Your task to perform on an android device: open the mobile data screen to see how much data has been used Image 0: 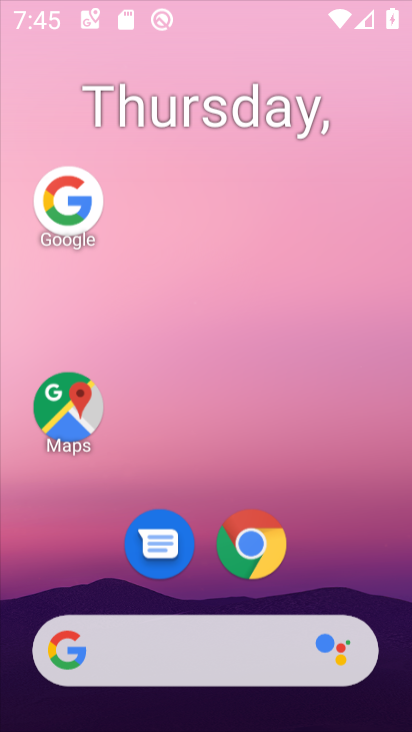
Step 0: press home button
Your task to perform on an android device: open the mobile data screen to see how much data has been used Image 1: 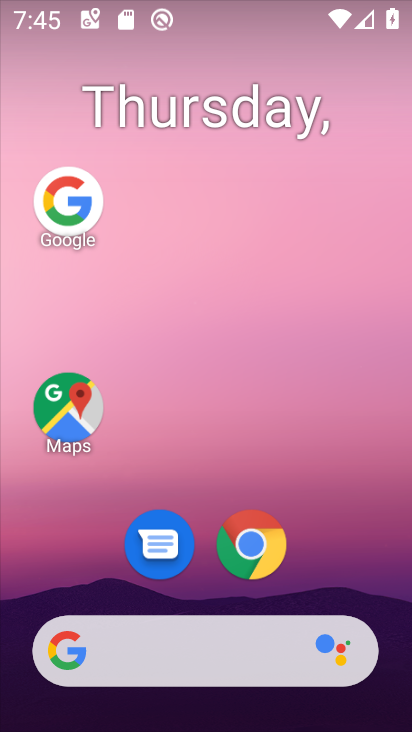
Step 1: drag from (213, 698) to (275, 116)
Your task to perform on an android device: open the mobile data screen to see how much data has been used Image 2: 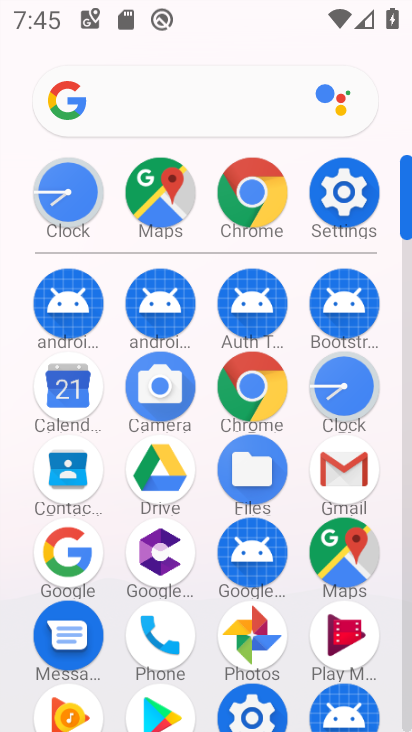
Step 2: click (350, 195)
Your task to perform on an android device: open the mobile data screen to see how much data has been used Image 3: 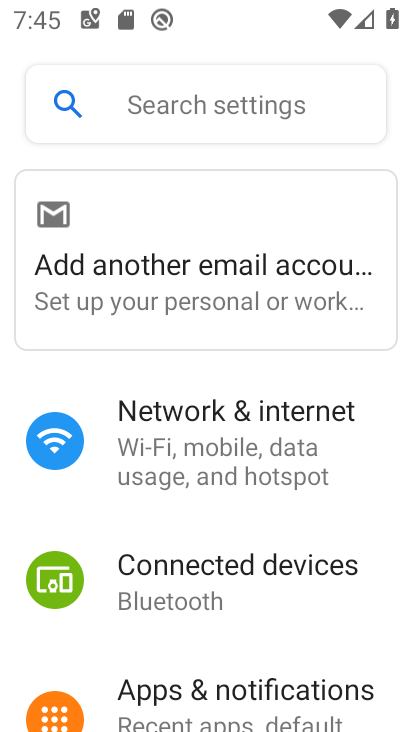
Step 3: click (225, 121)
Your task to perform on an android device: open the mobile data screen to see how much data has been used Image 4: 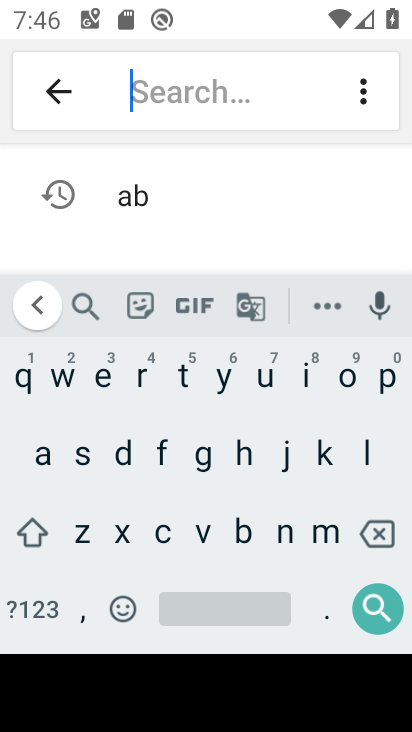
Step 4: click (323, 535)
Your task to perform on an android device: open the mobile data screen to see how much data has been used Image 5: 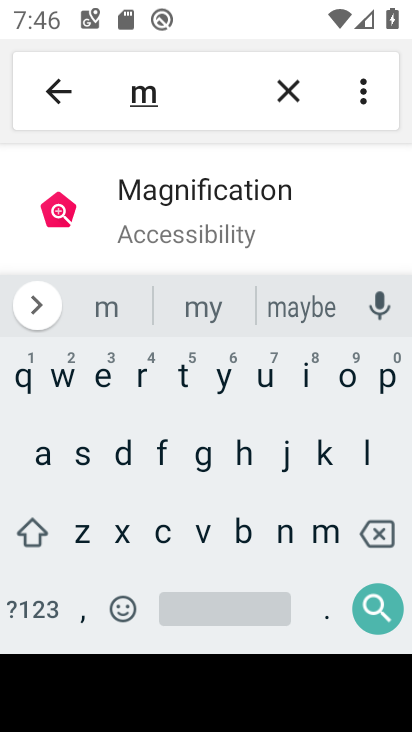
Step 5: click (350, 374)
Your task to perform on an android device: open the mobile data screen to see how much data has been used Image 6: 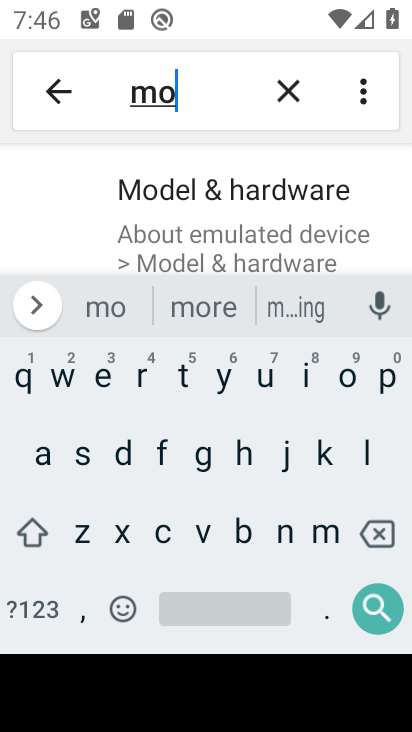
Step 6: click (238, 529)
Your task to perform on an android device: open the mobile data screen to see how much data has been used Image 7: 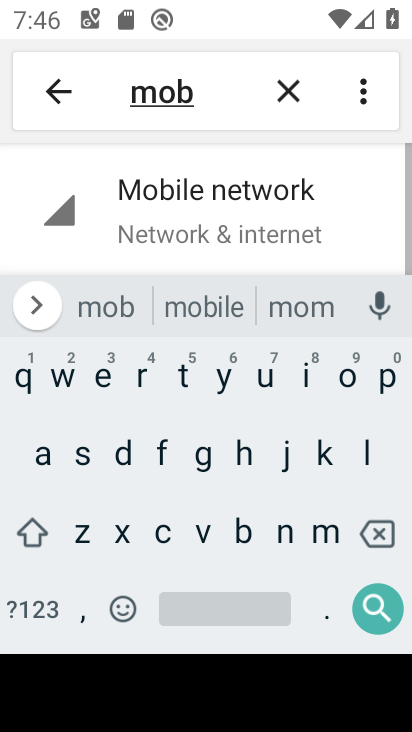
Step 7: click (310, 392)
Your task to perform on an android device: open the mobile data screen to see how much data has been used Image 8: 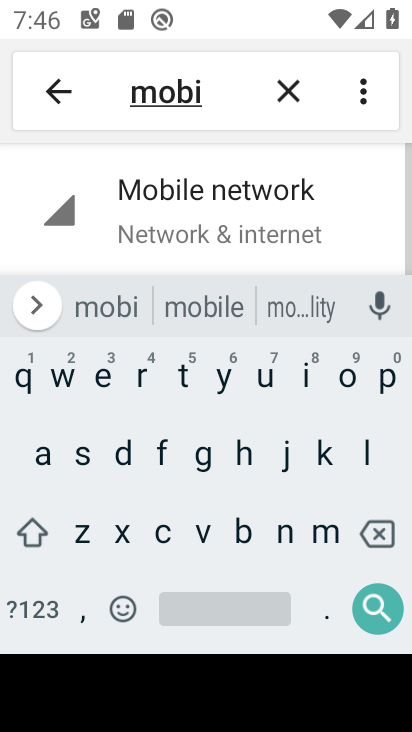
Step 8: click (359, 446)
Your task to perform on an android device: open the mobile data screen to see how much data has been used Image 9: 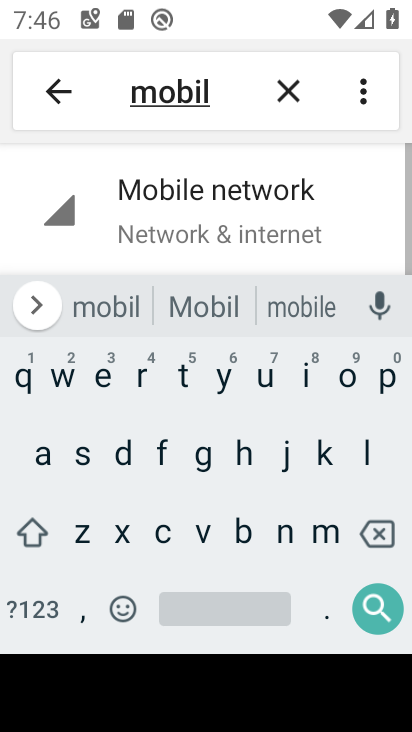
Step 9: click (104, 371)
Your task to perform on an android device: open the mobile data screen to see how much data has been used Image 10: 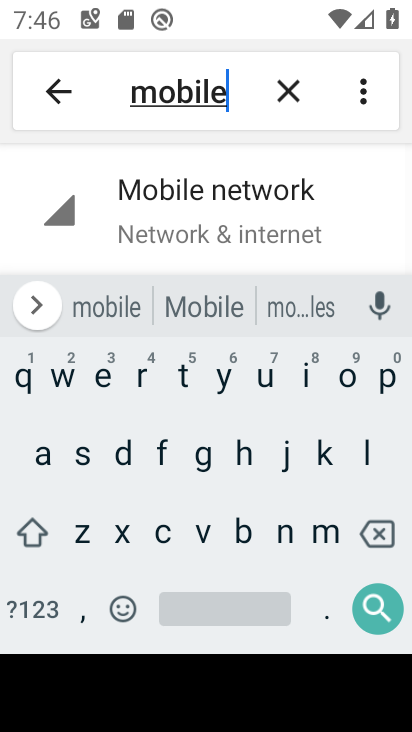
Step 10: click (207, 599)
Your task to perform on an android device: open the mobile data screen to see how much data has been used Image 11: 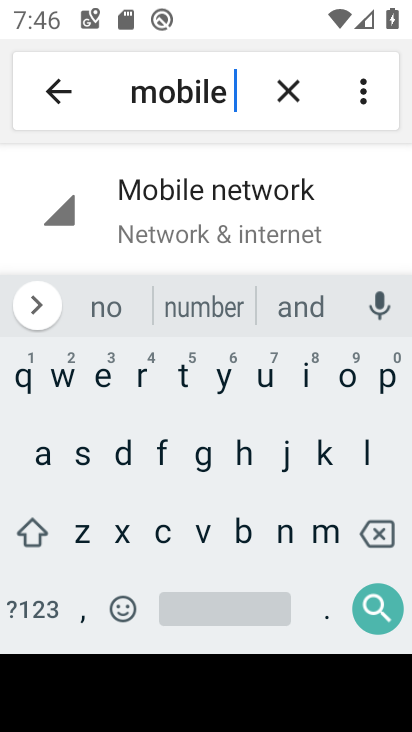
Step 11: click (122, 452)
Your task to perform on an android device: open the mobile data screen to see how much data has been used Image 12: 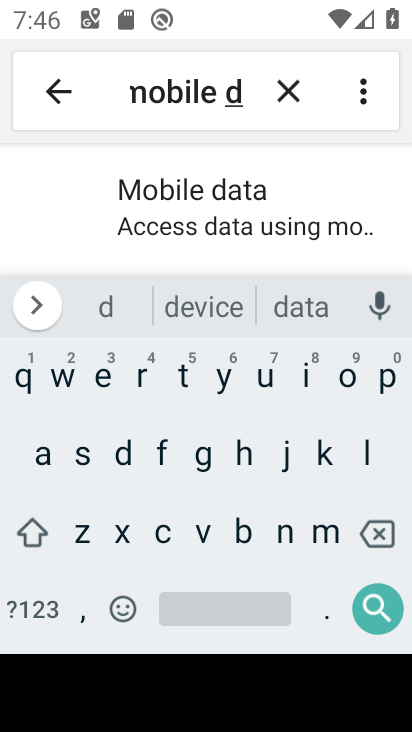
Step 12: click (40, 445)
Your task to perform on an android device: open the mobile data screen to see how much data has been used Image 13: 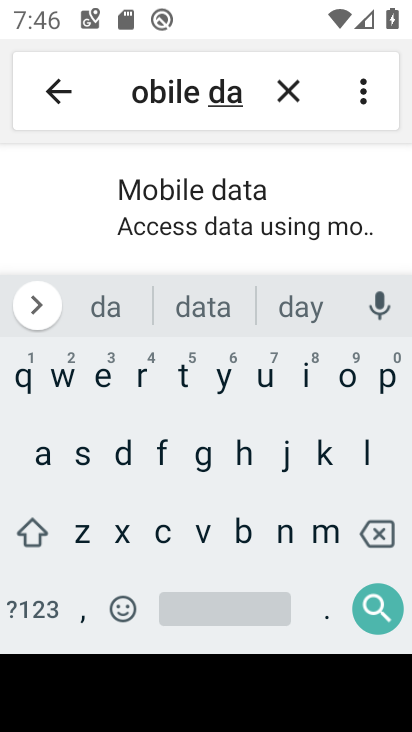
Step 13: click (219, 209)
Your task to perform on an android device: open the mobile data screen to see how much data has been used Image 14: 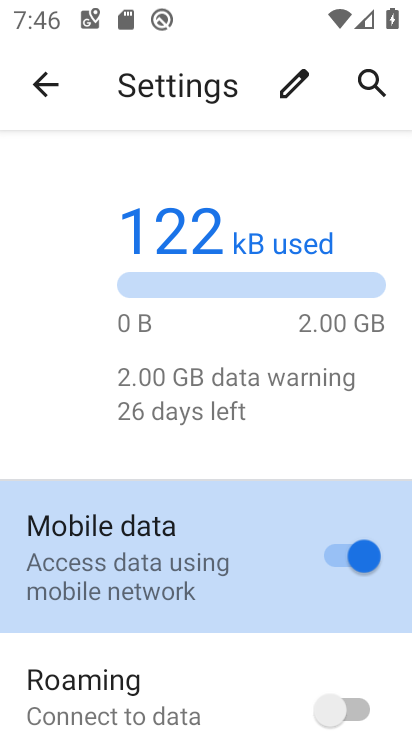
Step 14: task complete